Your task to perform on an android device: Open the map Image 0: 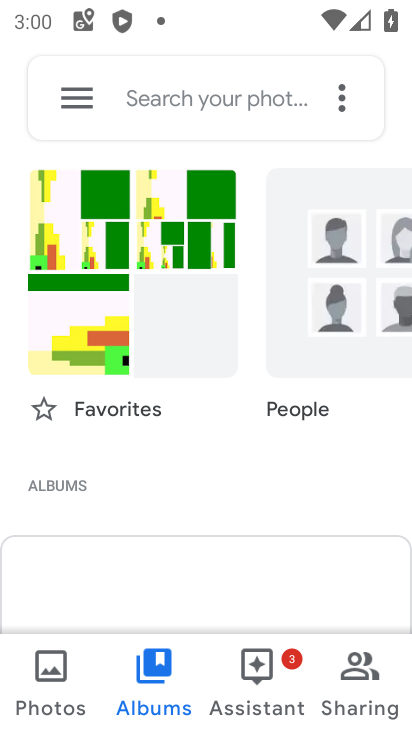
Step 0: press home button
Your task to perform on an android device: Open the map Image 1: 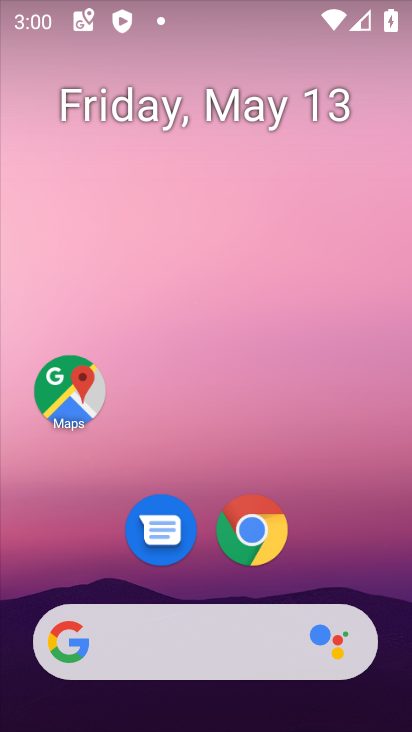
Step 1: click (268, 532)
Your task to perform on an android device: Open the map Image 2: 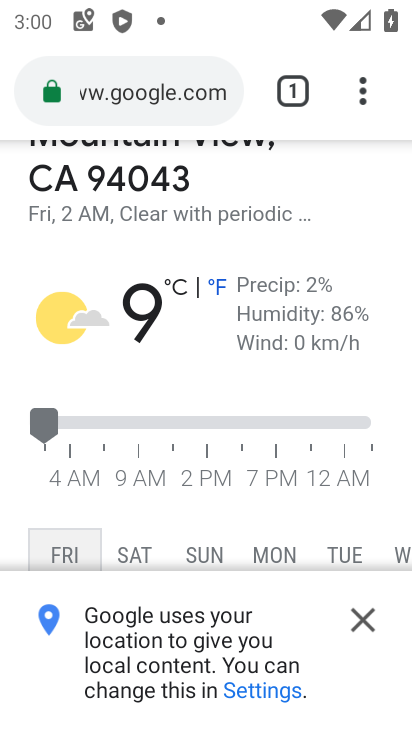
Step 2: press home button
Your task to perform on an android device: Open the map Image 3: 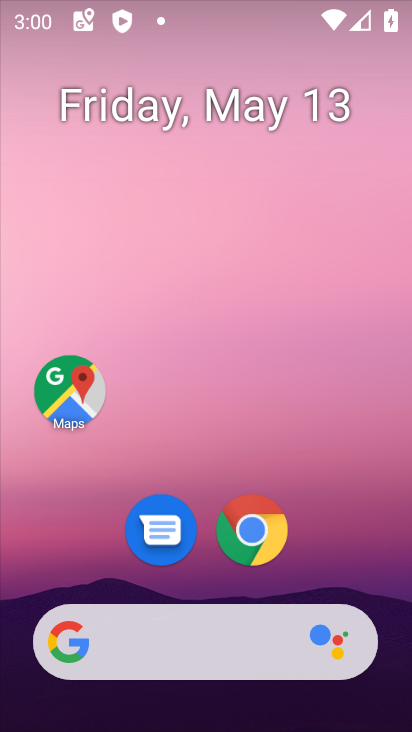
Step 3: click (62, 392)
Your task to perform on an android device: Open the map Image 4: 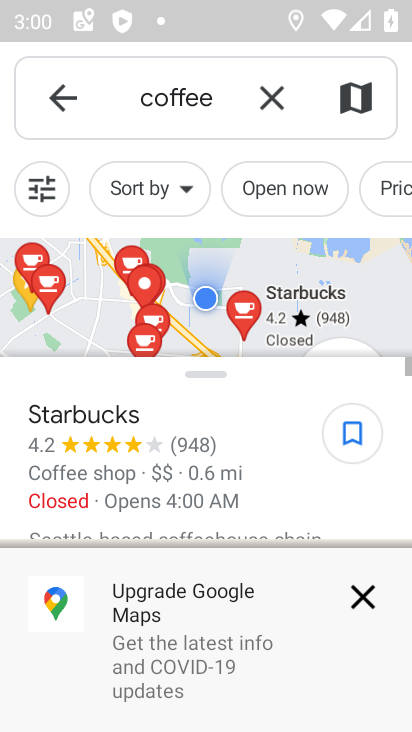
Step 4: task complete